Your task to perform on an android device: Go to CNN.com Image 0: 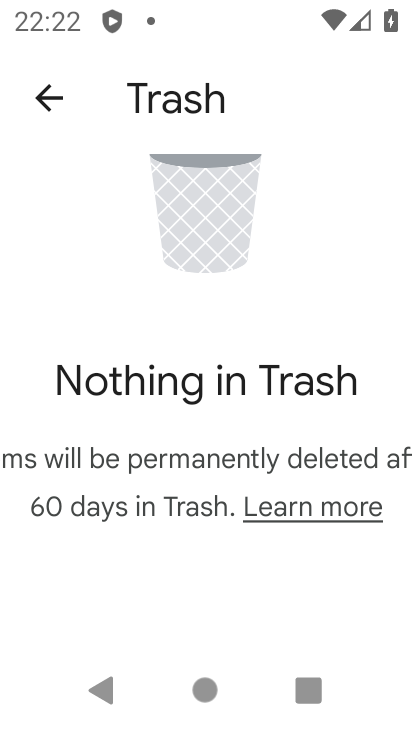
Step 0: drag from (204, 533) to (178, 69)
Your task to perform on an android device: Go to CNN.com Image 1: 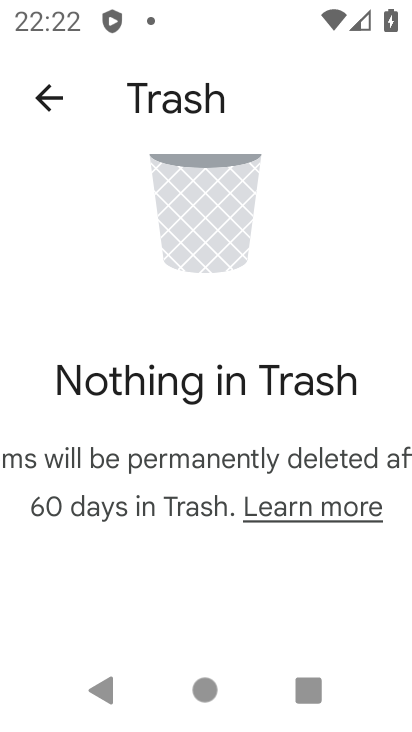
Step 1: drag from (191, 552) to (193, 159)
Your task to perform on an android device: Go to CNN.com Image 2: 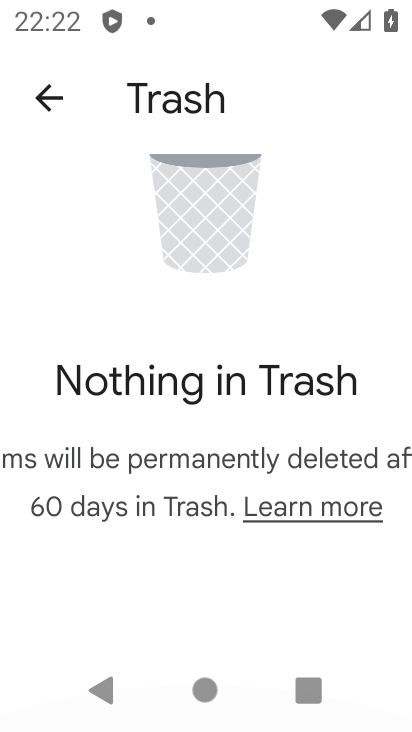
Step 2: click (174, 121)
Your task to perform on an android device: Go to CNN.com Image 3: 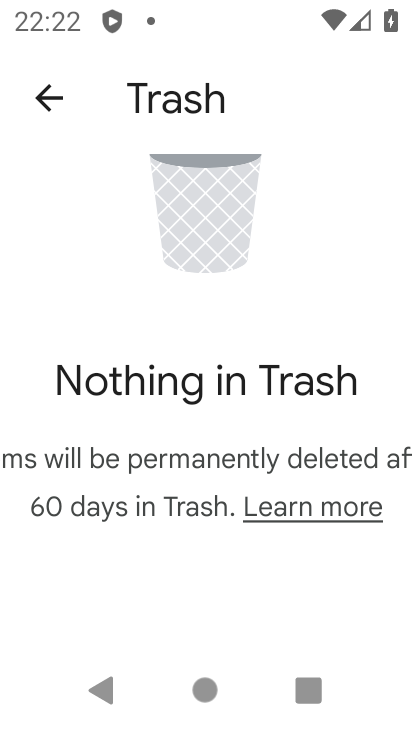
Step 3: click (173, 121)
Your task to perform on an android device: Go to CNN.com Image 4: 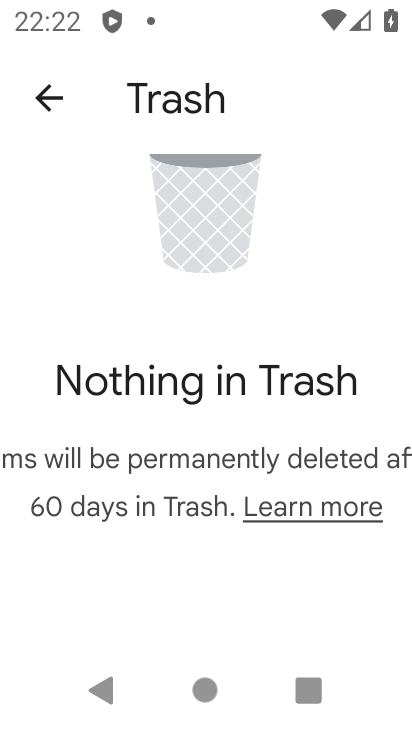
Step 4: click (173, 121)
Your task to perform on an android device: Go to CNN.com Image 5: 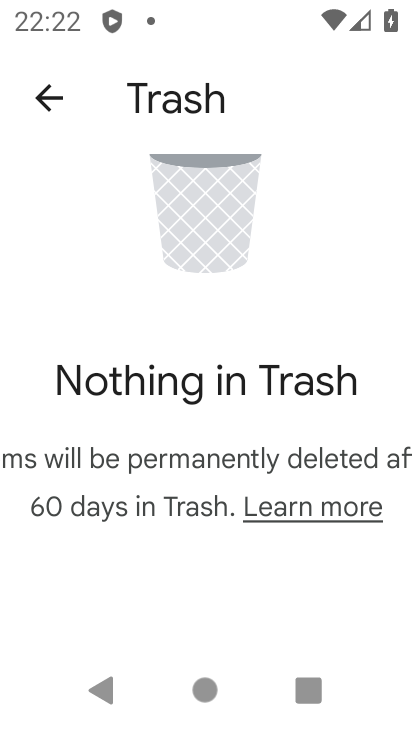
Step 5: click (162, 112)
Your task to perform on an android device: Go to CNN.com Image 6: 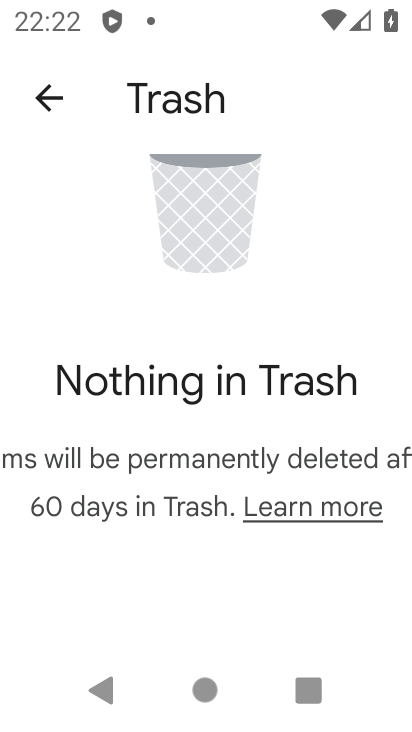
Step 6: click (162, 112)
Your task to perform on an android device: Go to CNN.com Image 7: 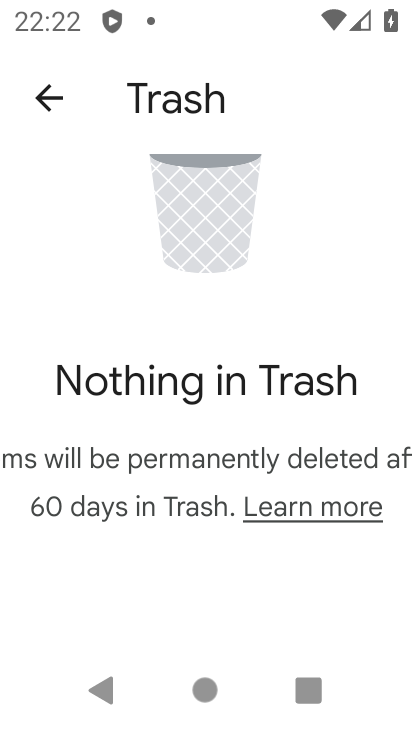
Step 7: click (167, 377)
Your task to perform on an android device: Go to CNN.com Image 8: 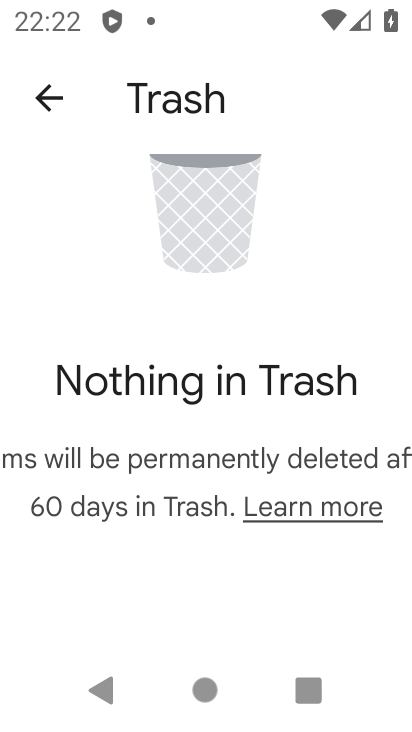
Step 8: click (220, 371)
Your task to perform on an android device: Go to CNN.com Image 9: 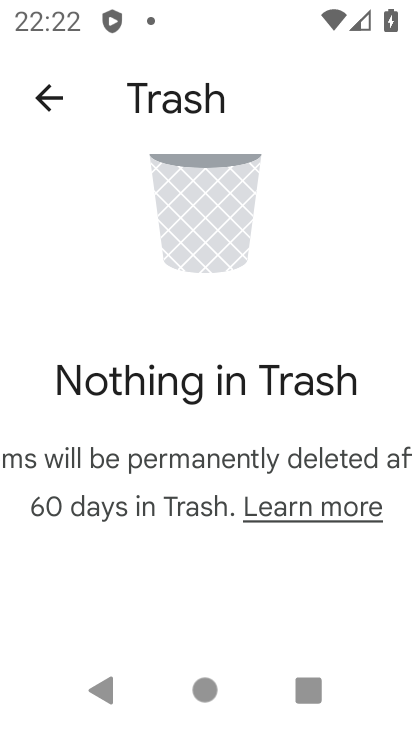
Step 9: click (220, 371)
Your task to perform on an android device: Go to CNN.com Image 10: 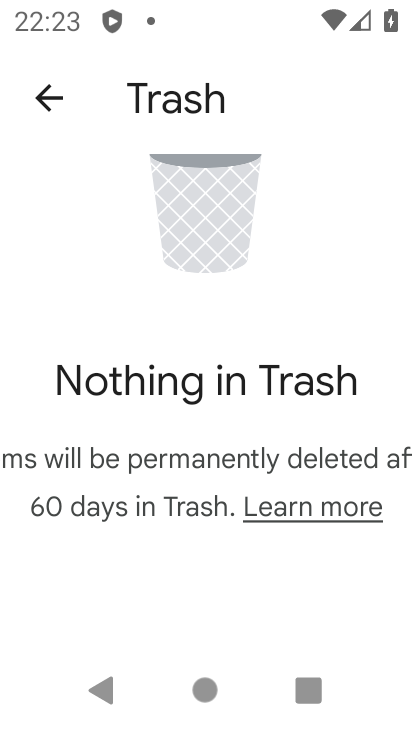
Step 10: click (219, 366)
Your task to perform on an android device: Go to CNN.com Image 11: 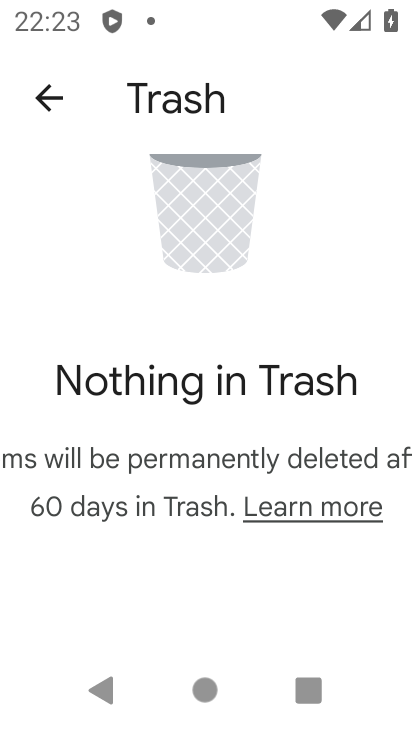
Step 11: press home button
Your task to perform on an android device: Go to CNN.com Image 12: 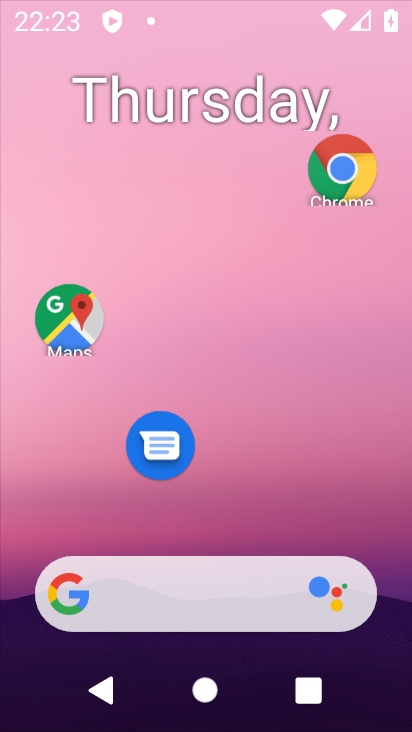
Step 12: drag from (203, 516) to (266, 240)
Your task to perform on an android device: Go to CNN.com Image 13: 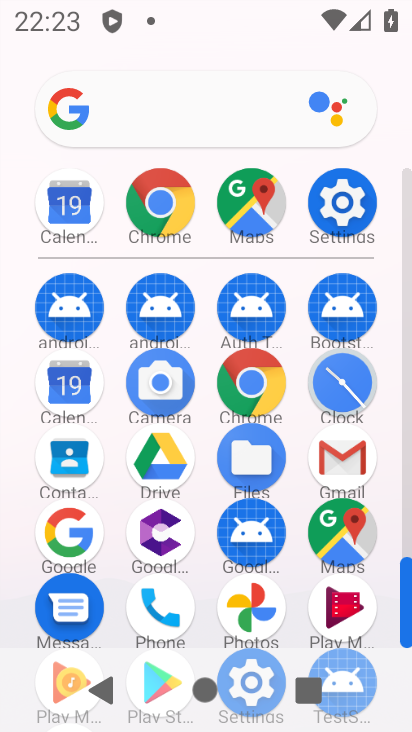
Step 13: click (169, 116)
Your task to perform on an android device: Go to CNN.com Image 14: 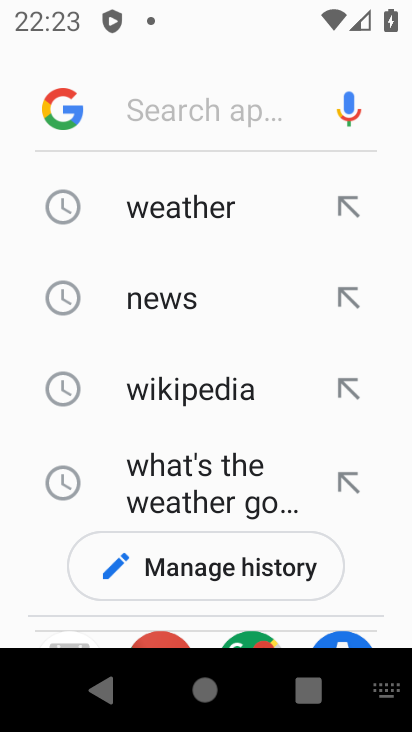
Step 14: click (170, 115)
Your task to perform on an android device: Go to CNN.com Image 15: 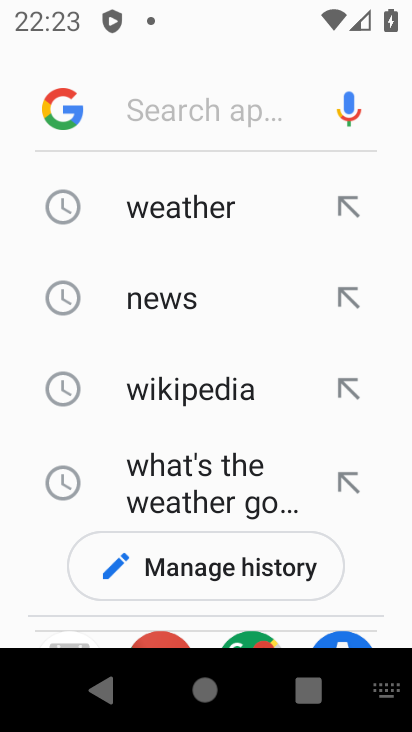
Step 15: type "CNN.com"
Your task to perform on an android device: Go to CNN.com Image 16: 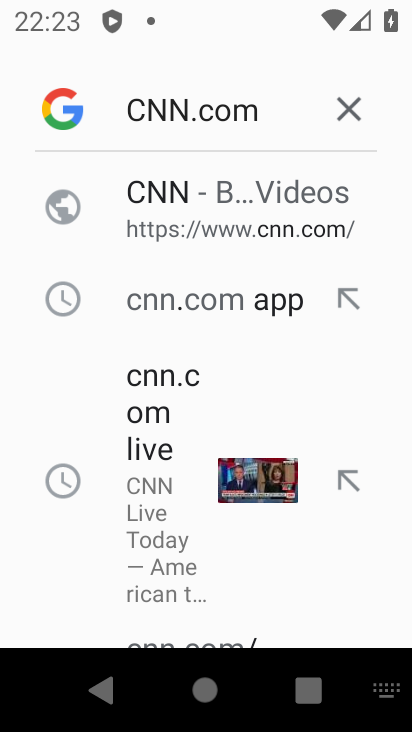
Step 16: click (154, 216)
Your task to perform on an android device: Go to CNN.com Image 17: 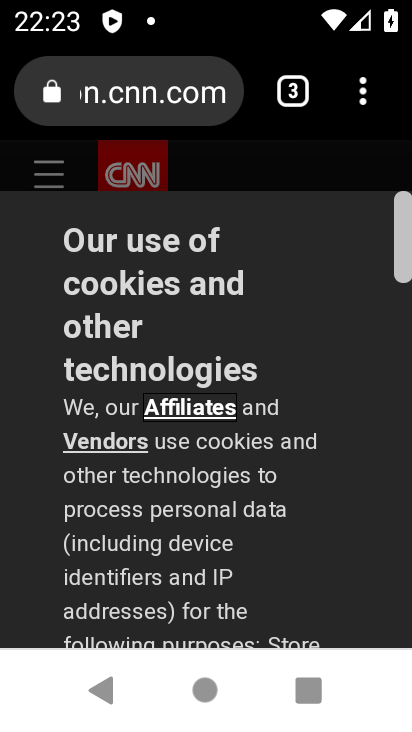
Step 17: task complete